Your task to perform on an android device: check data usage Image 0: 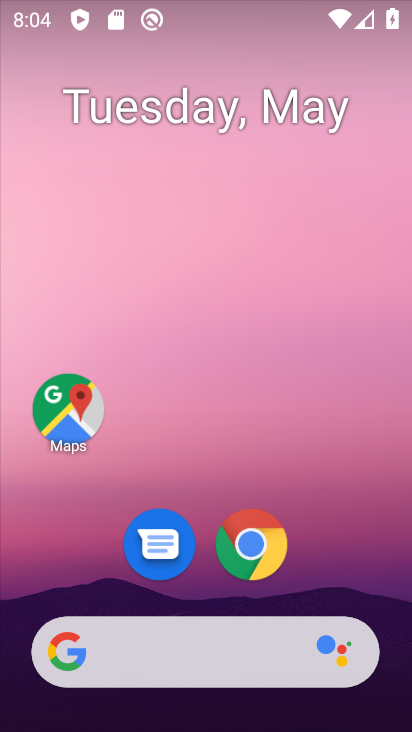
Step 0: drag from (309, 496) to (158, 11)
Your task to perform on an android device: check data usage Image 1: 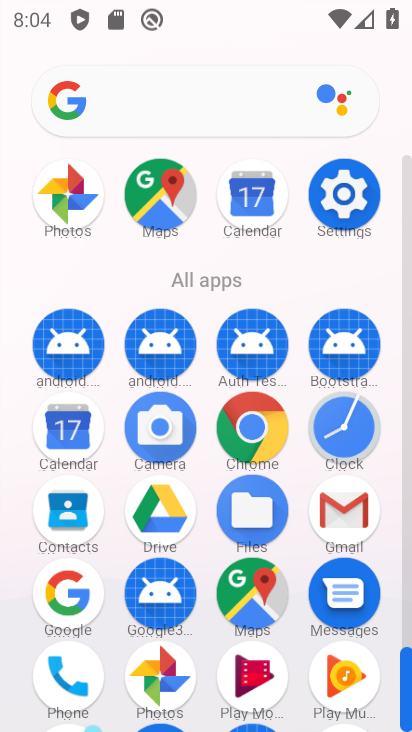
Step 1: click (349, 190)
Your task to perform on an android device: check data usage Image 2: 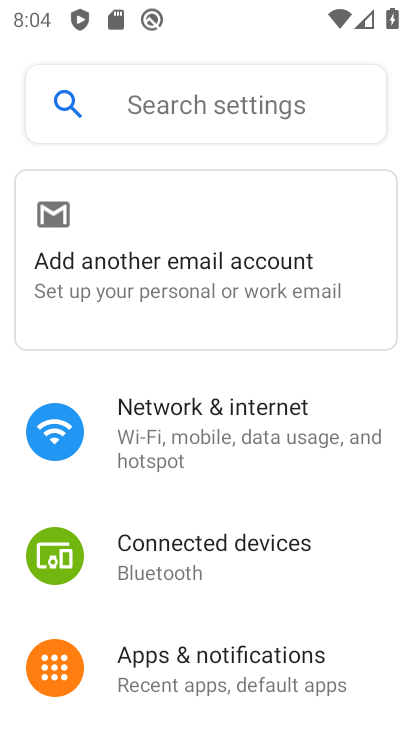
Step 2: click (212, 412)
Your task to perform on an android device: check data usage Image 3: 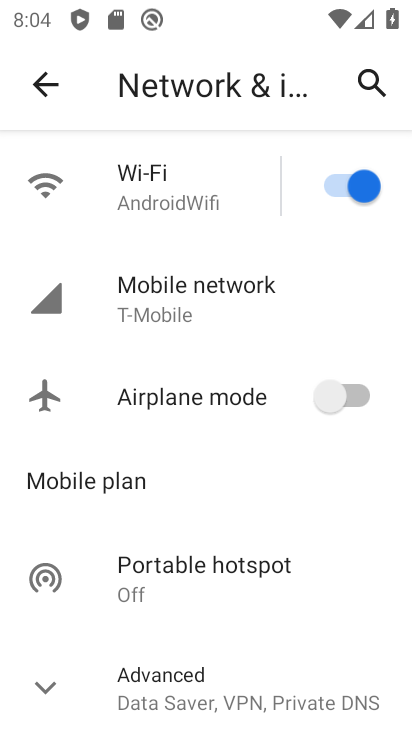
Step 3: click (191, 289)
Your task to perform on an android device: check data usage Image 4: 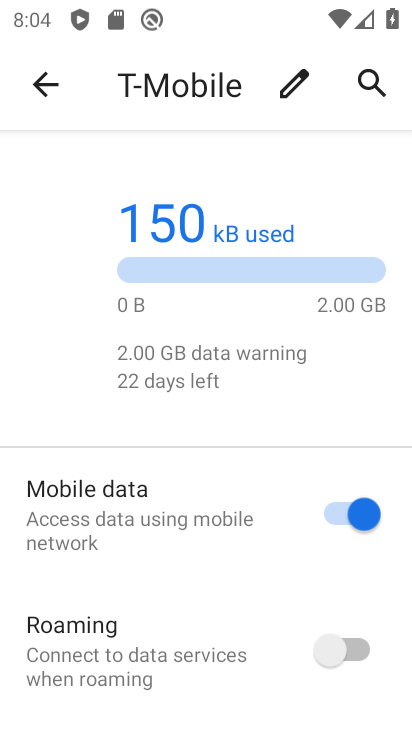
Step 4: task complete